Your task to perform on an android device: change notifications settings Image 0: 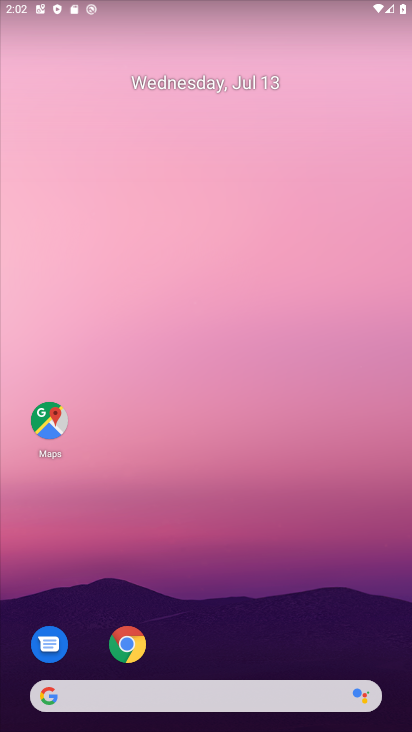
Step 0: drag from (327, 582) to (272, 97)
Your task to perform on an android device: change notifications settings Image 1: 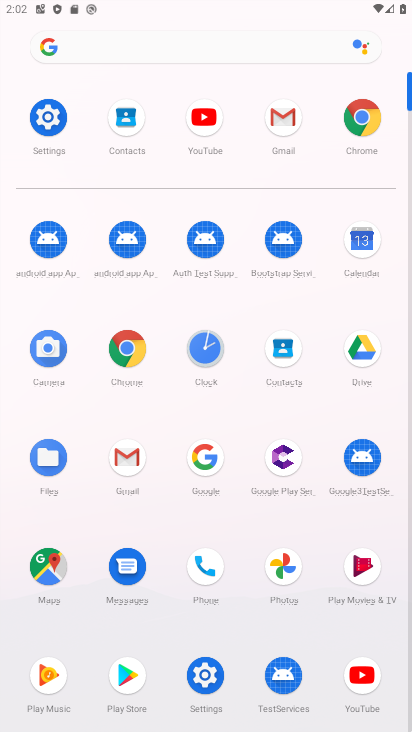
Step 1: click (49, 118)
Your task to perform on an android device: change notifications settings Image 2: 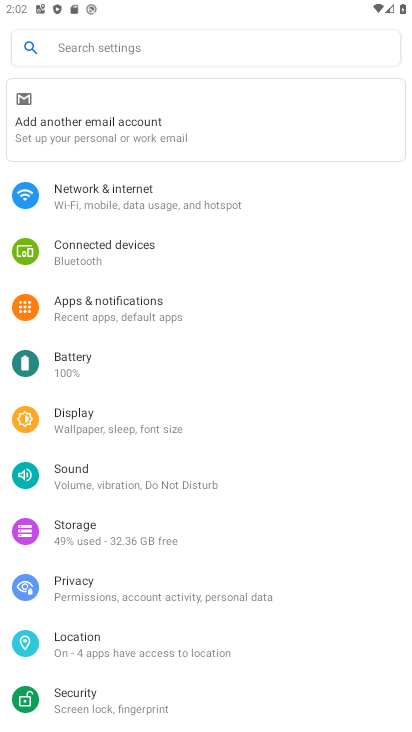
Step 2: click (112, 300)
Your task to perform on an android device: change notifications settings Image 3: 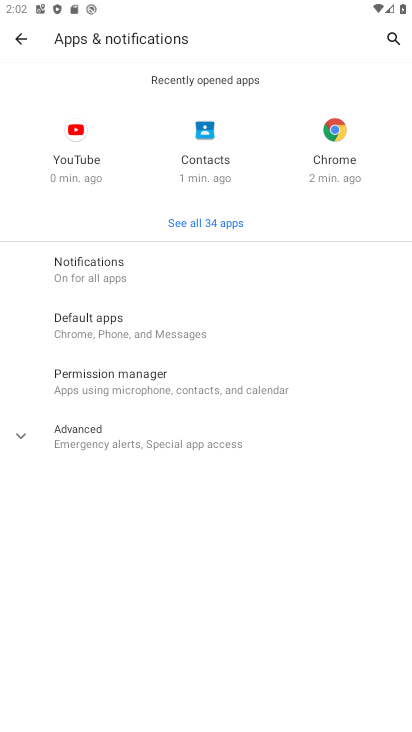
Step 3: click (115, 268)
Your task to perform on an android device: change notifications settings Image 4: 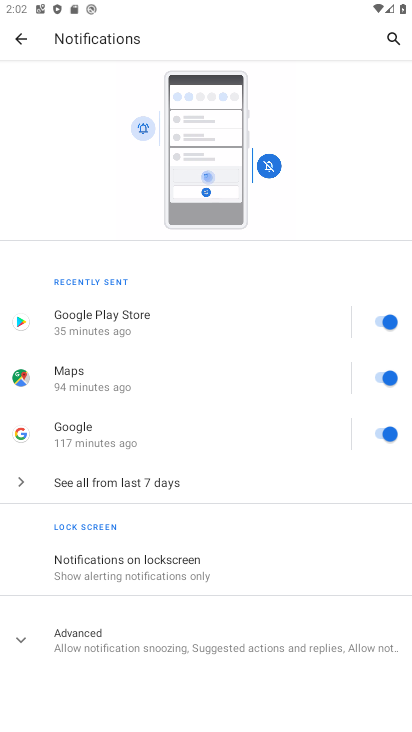
Step 4: task complete